Your task to perform on an android device: check android version Image 0: 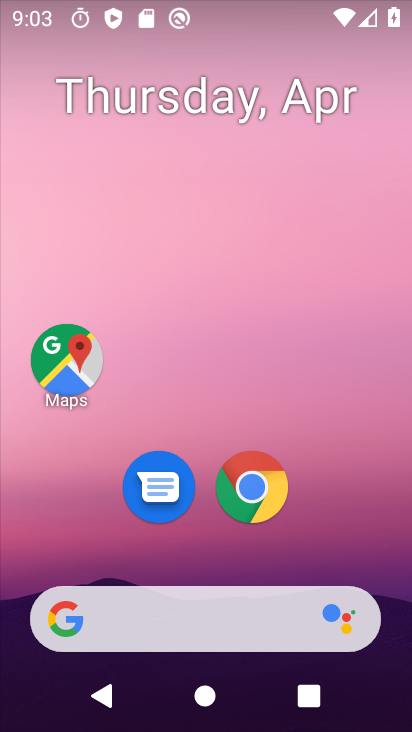
Step 0: drag from (361, 517) to (350, 146)
Your task to perform on an android device: check android version Image 1: 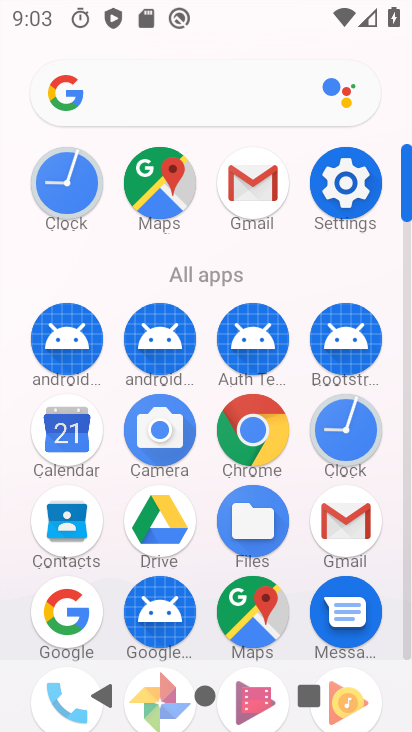
Step 1: click (365, 186)
Your task to perform on an android device: check android version Image 2: 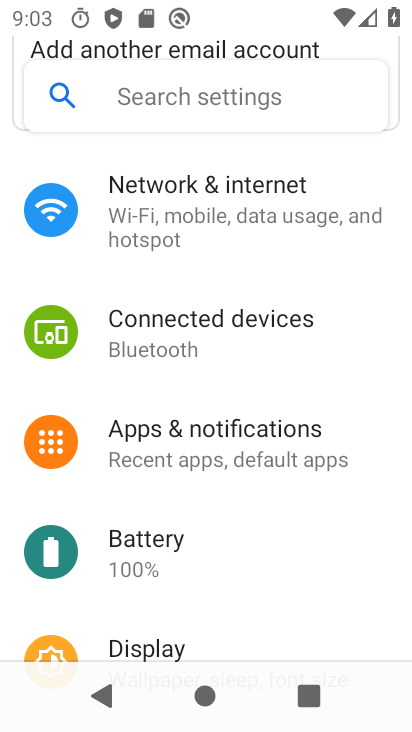
Step 2: drag from (257, 616) to (332, 250)
Your task to perform on an android device: check android version Image 3: 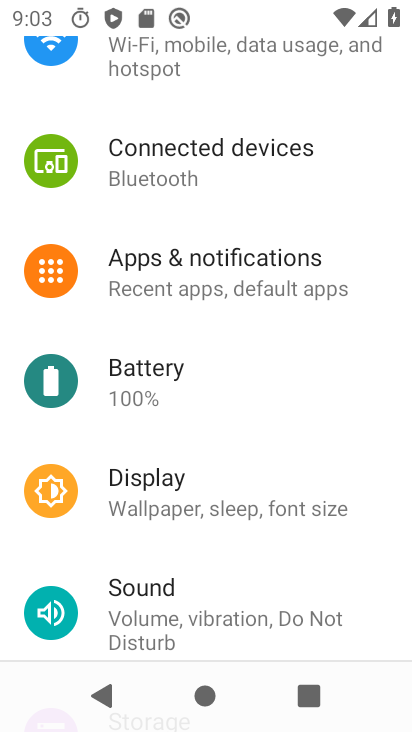
Step 3: drag from (271, 549) to (319, 261)
Your task to perform on an android device: check android version Image 4: 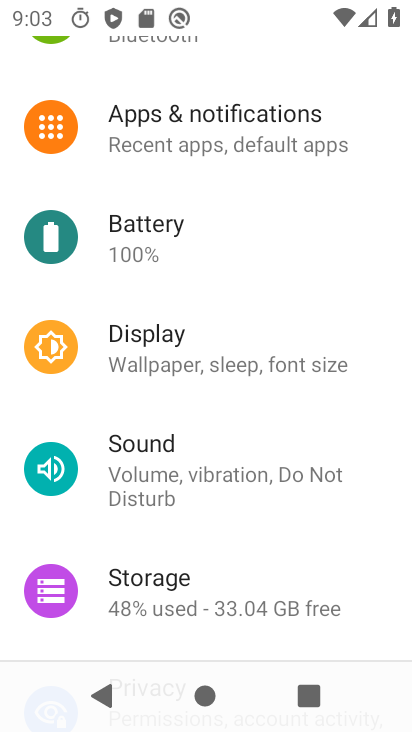
Step 4: drag from (250, 565) to (291, 268)
Your task to perform on an android device: check android version Image 5: 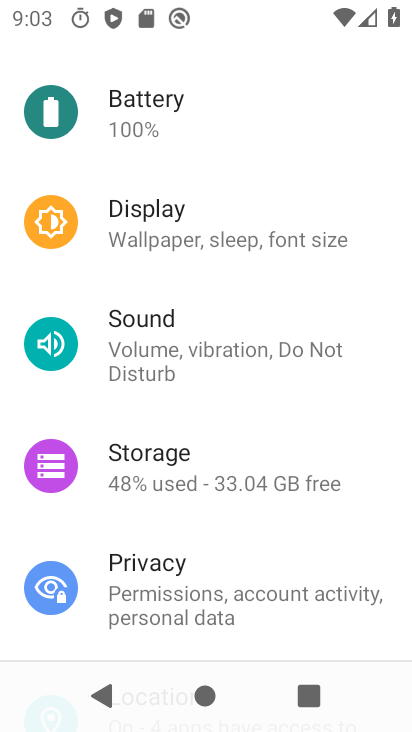
Step 5: drag from (248, 633) to (325, 259)
Your task to perform on an android device: check android version Image 6: 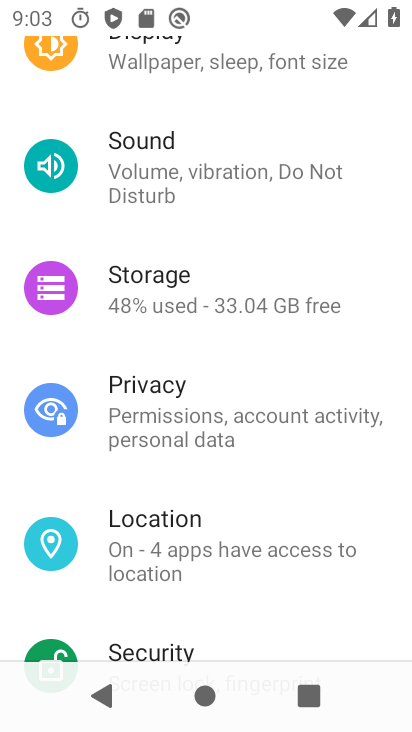
Step 6: drag from (290, 634) to (337, 215)
Your task to perform on an android device: check android version Image 7: 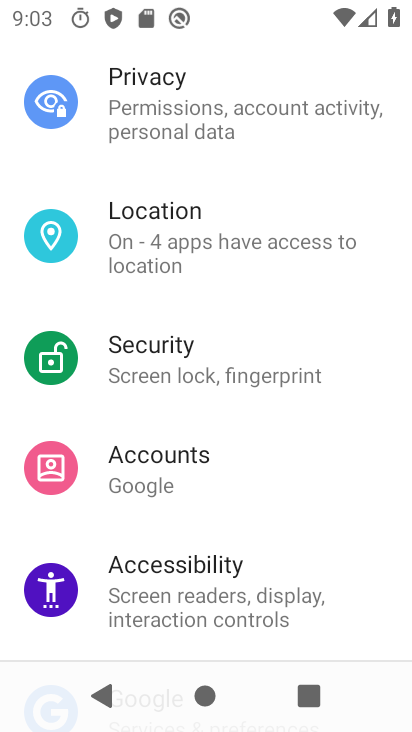
Step 7: drag from (282, 536) to (359, 164)
Your task to perform on an android device: check android version Image 8: 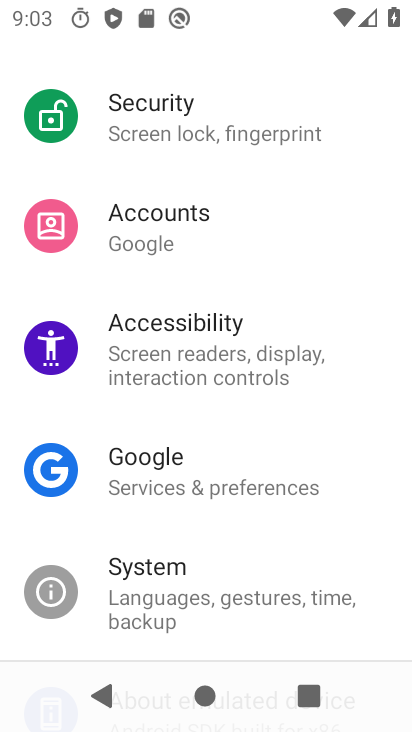
Step 8: drag from (329, 444) to (365, 117)
Your task to perform on an android device: check android version Image 9: 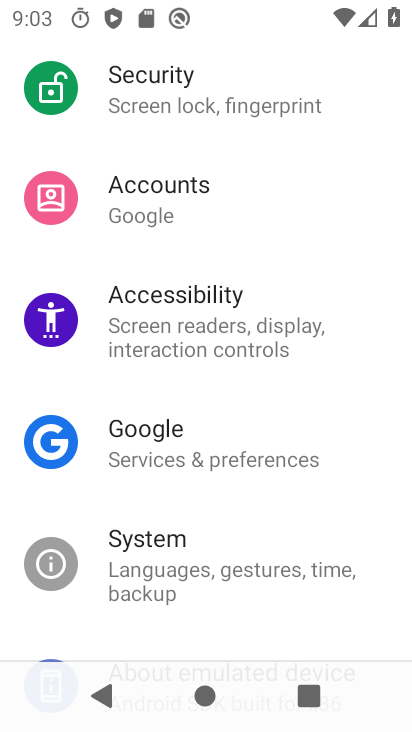
Step 9: drag from (325, 611) to (374, 193)
Your task to perform on an android device: check android version Image 10: 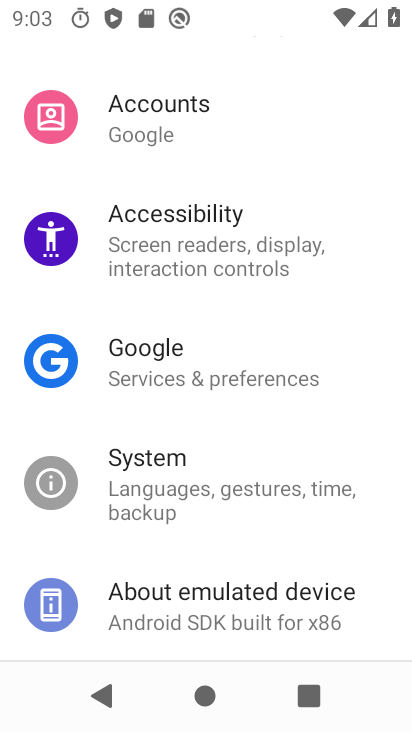
Step 10: drag from (275, 501) to (320, 158)
Your task to perform on an android device: check android version Image 11: 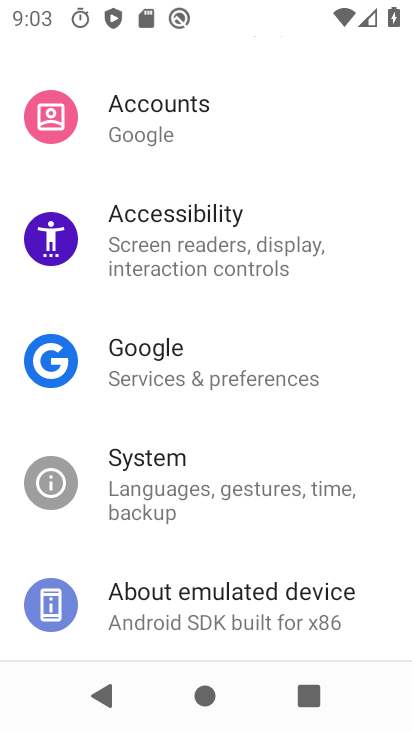
Step 11: click (231, 592)
Your task to perform on an android device: check android version Image 12: 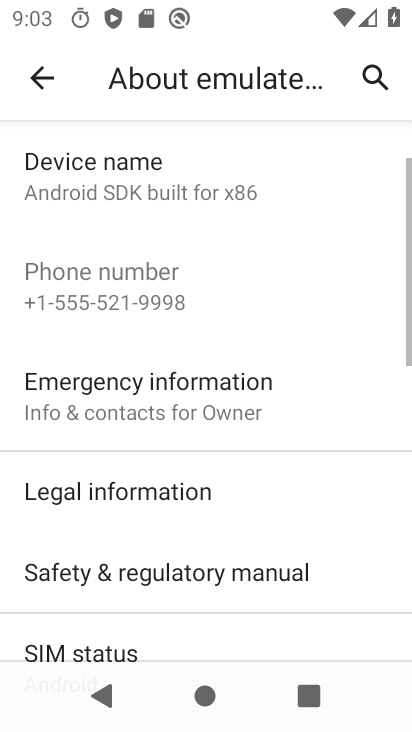
Step 12: task complete